Your task to perform on an android device: Open wifi settings Image 0: 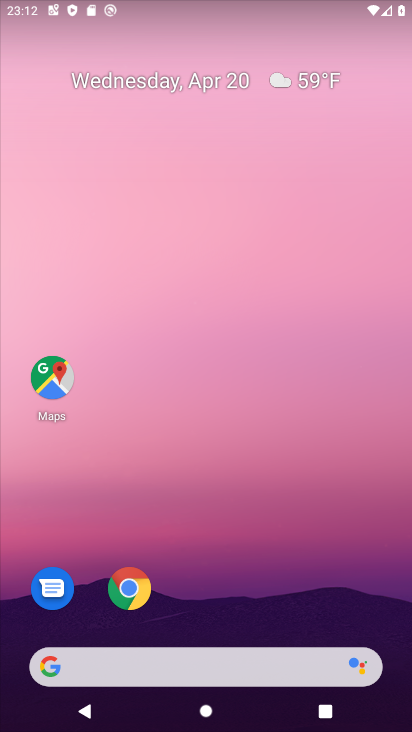
Step 0: drag from (225, 726) to (225, 47)
Your task to perform on an android device: Open wifi settings Image 1: 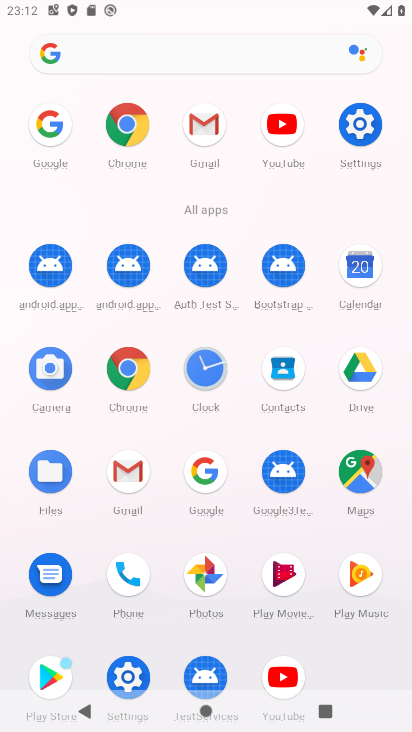
Step 1: click (359, 128)
Your task to perform on an android device: Open wifi settings Image 2: 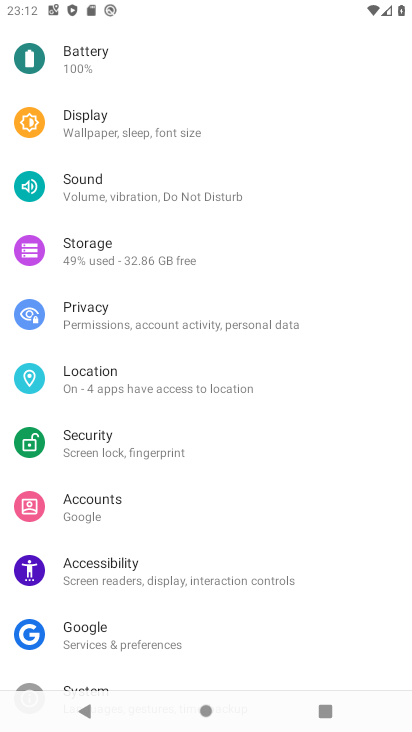
Step 2: drag from (144, 119) to (142, 501)
Your task to perform on an android device: Open wifi settings Image 3: 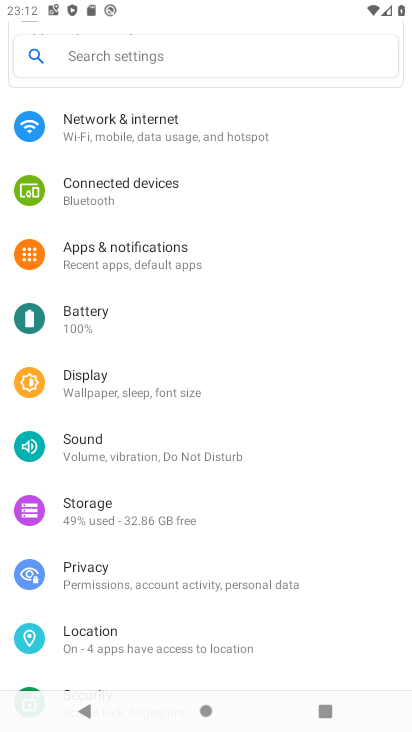
Step 3: click (115, 130)
Your task to perform on an android device: Open wifi settings Image 4: 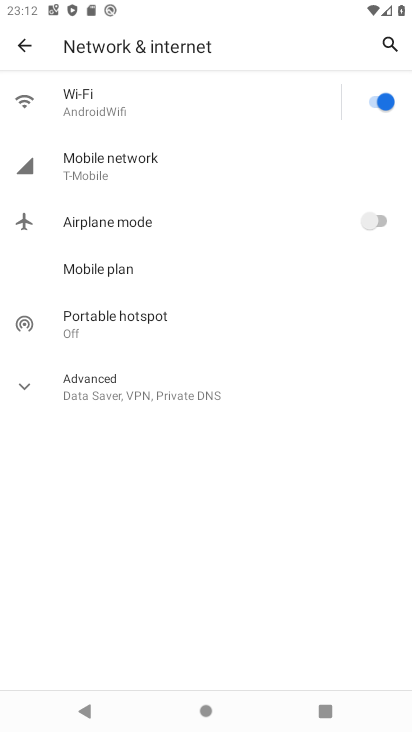
Step 4: click (105, 108)
Your task to perform on an android device: Open wifi settings Image 5: 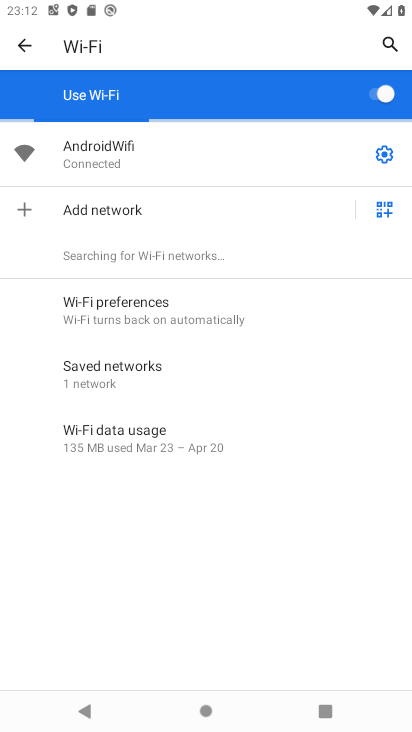
Step 5: task complete